Your task to perform on an android device: Search for "bose soundlink mini" on newegg.com, select the first entry, add it to the cart, then select checkout. Image 0: 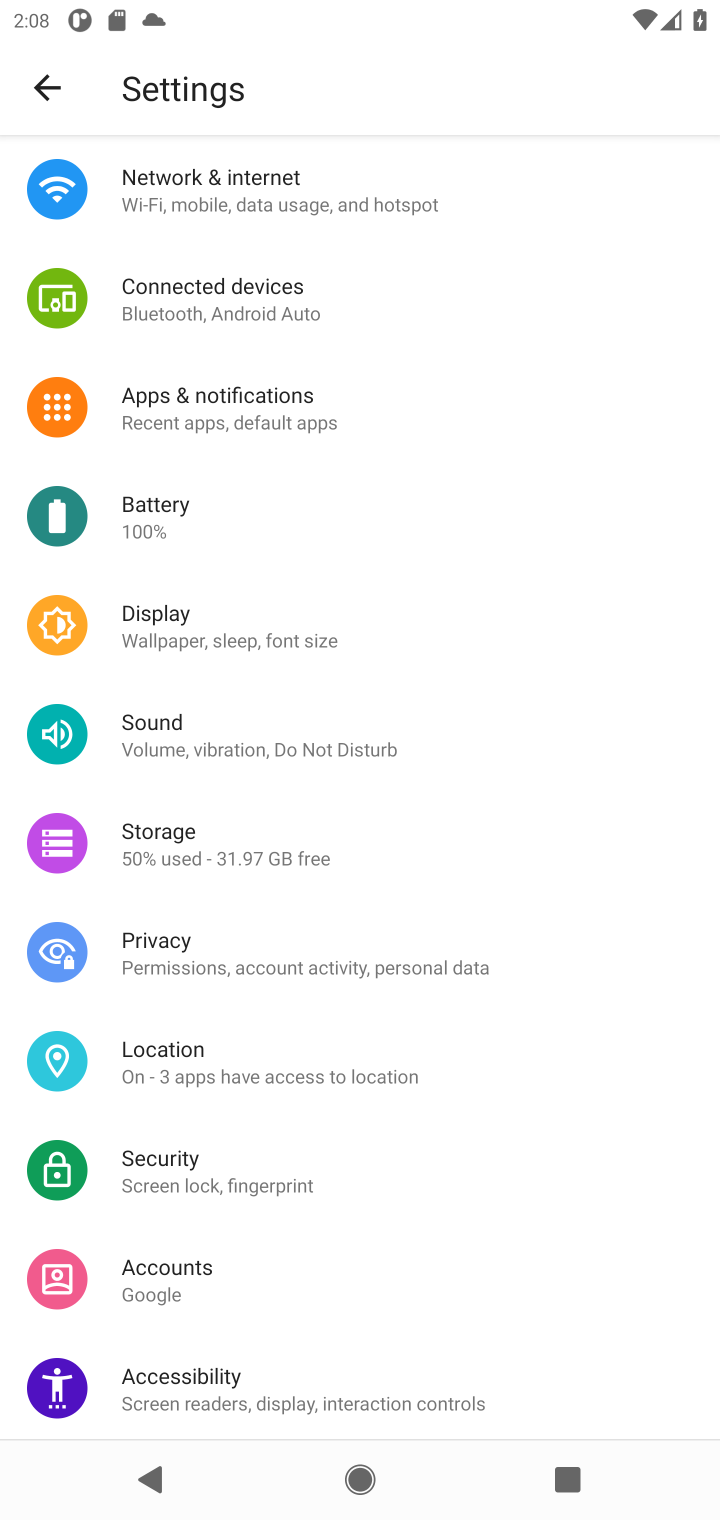
Step 0: press home button
Your task to perform on an android device: Search for "bose soundlink mini" on newegg.com, select the first entry, add it to the cart, then select checkout. Image 1: 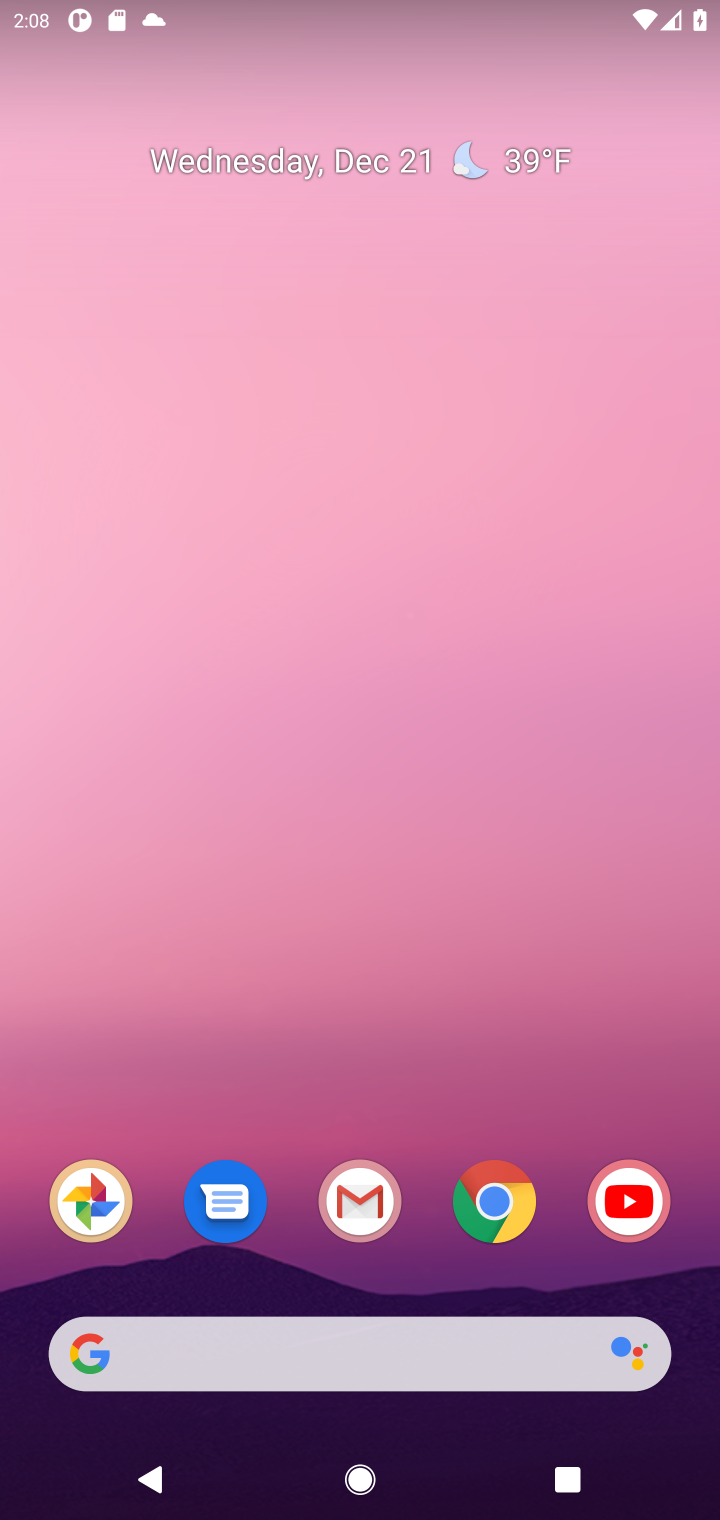
Step 1: click (485, 1226)
Your task to perform on an android device: Search for "bose soundlink mini" on newegg.com, select the first entry, add it to the cart, then select checkout. Image 2: 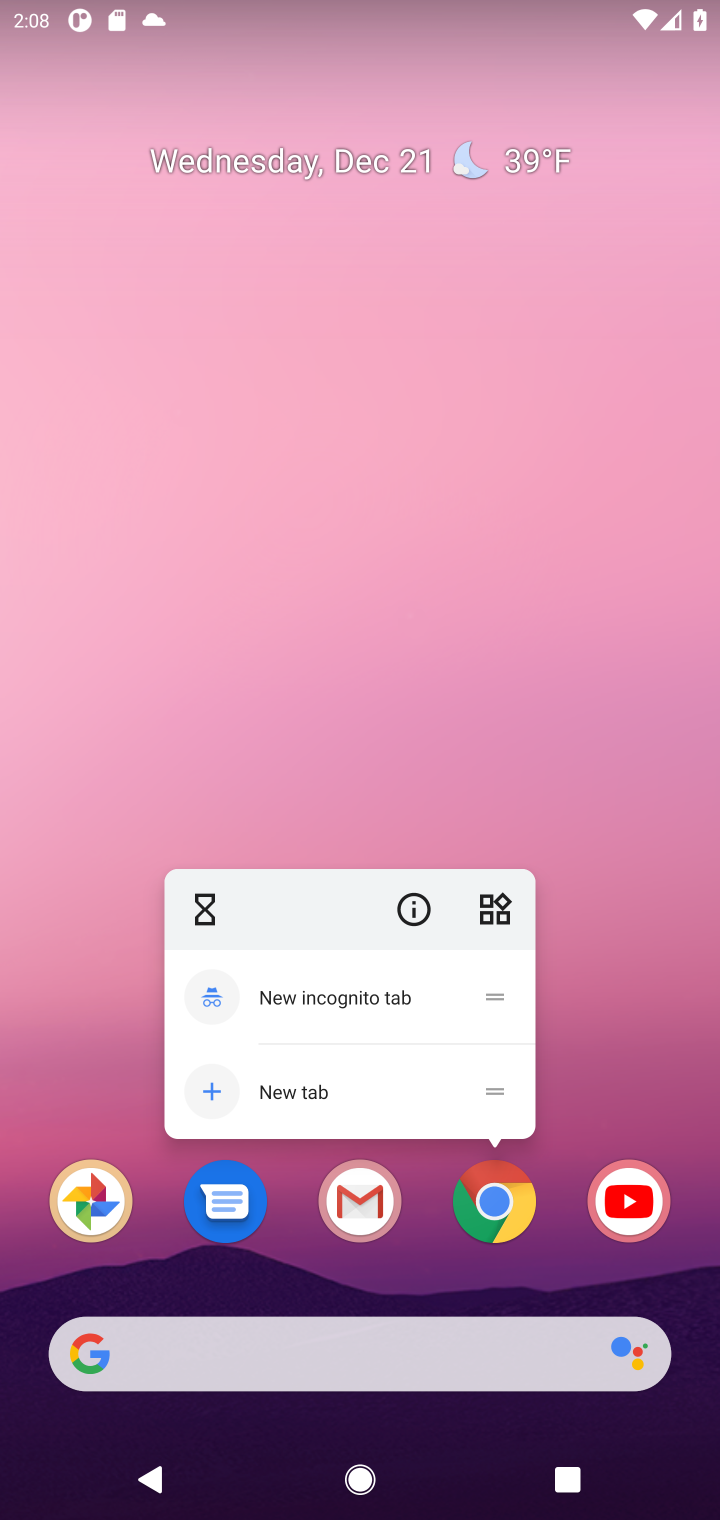
Step 2: click (494, 1215)
Your task to perform on an android device: Search for "bose soundlink mini" on newegg.com, select the first entry, add it to the cart, then select checkout. Image 3: 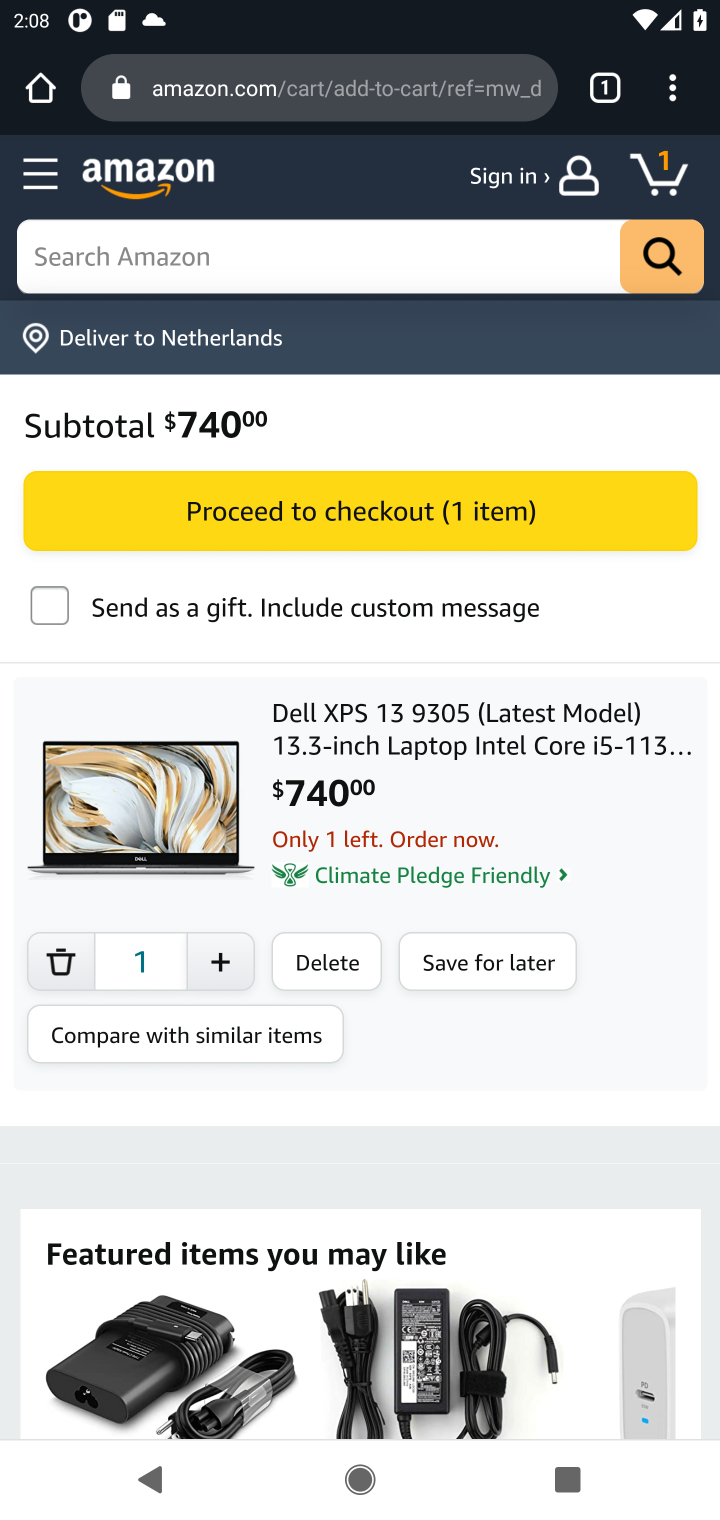
Step 3: click (210, 88)
Your task to perform on an android device: Search for "bose soundlink mini" on newegg.com, select the first entry, add it to the cart, then select checkout. Image 4: 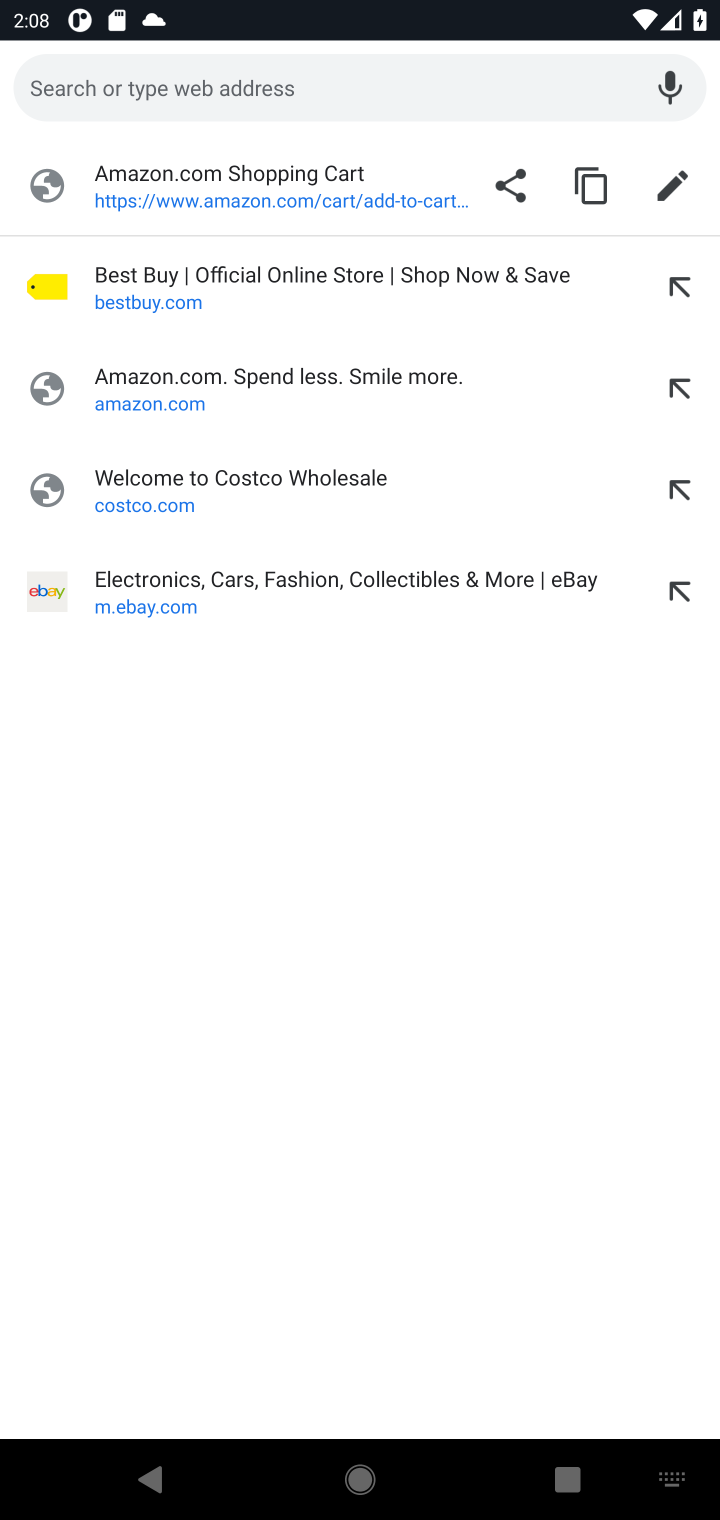
Step 4: type "newegg.com"
Your task to perform on an android device: Search for "bose soundlink mini" on newegg.com, select the first entry, add it to the cart, then select checkout. Image 5: 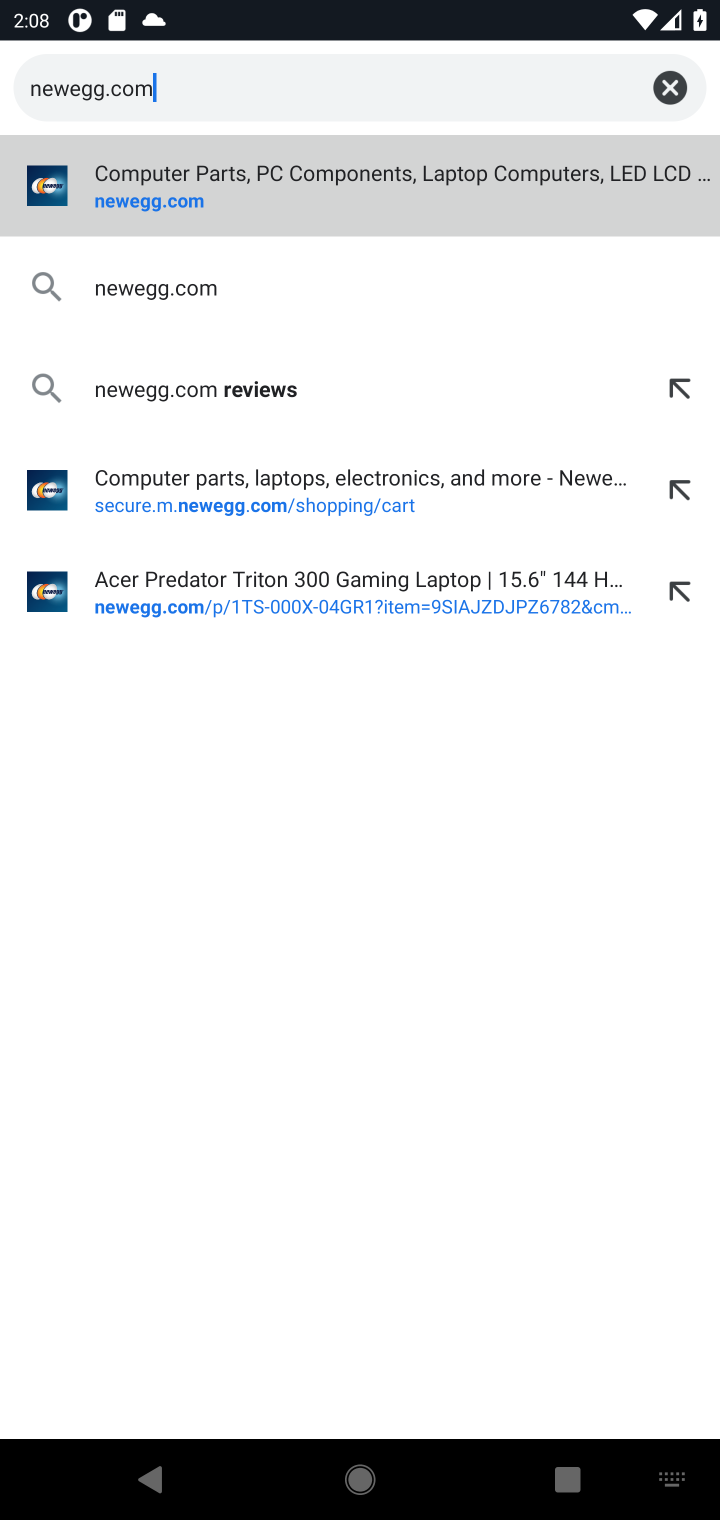
Step 5: click (127, 174)
Your task to perform on an android device: Search for "bose soundlink mini" on newegg.com, select the first entry, add it to the cart, then select checkout. Image 6: 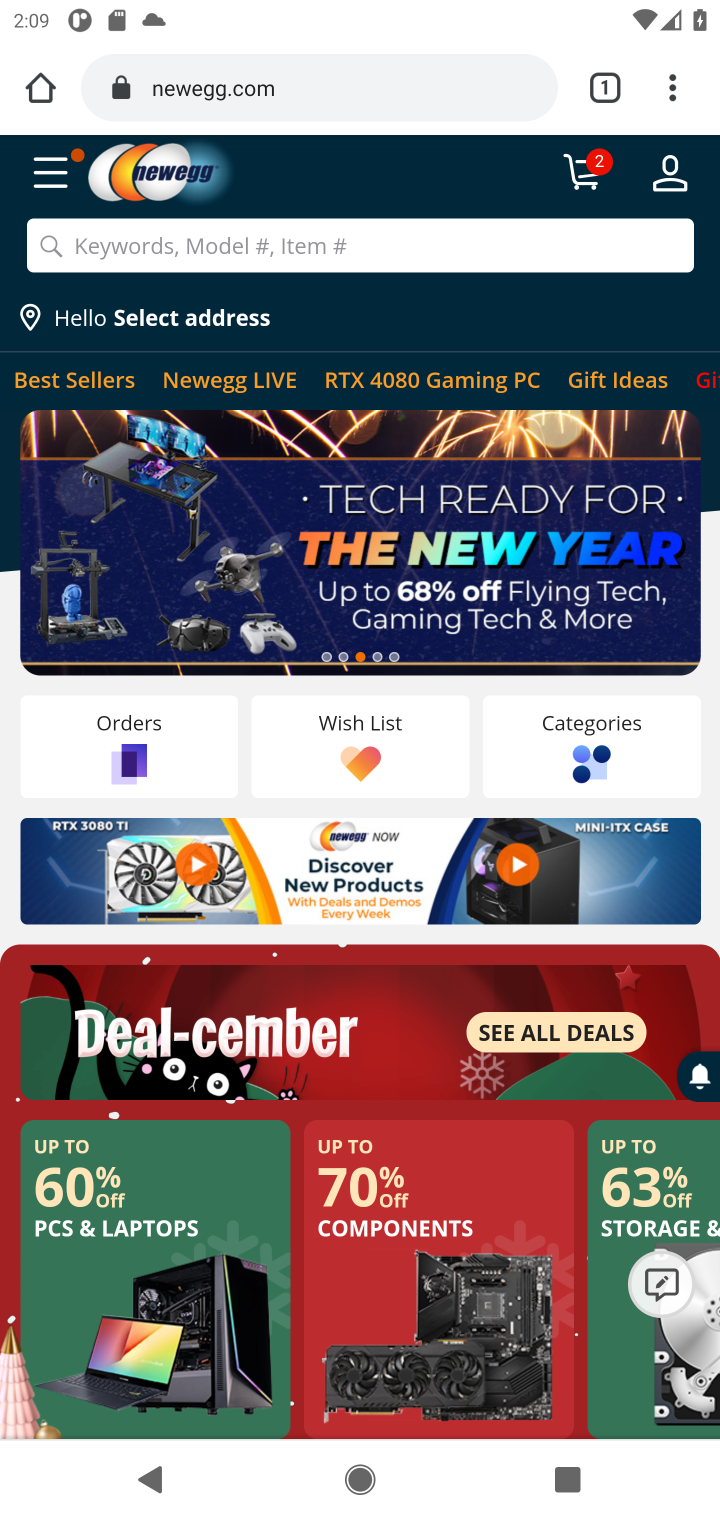
Step 6: click (111, 238)
Your task to perform on an android device: Search for "bose soundlink mini" on newegg.com, select the first entry, add it to the cart, then select checkout. Image 7: 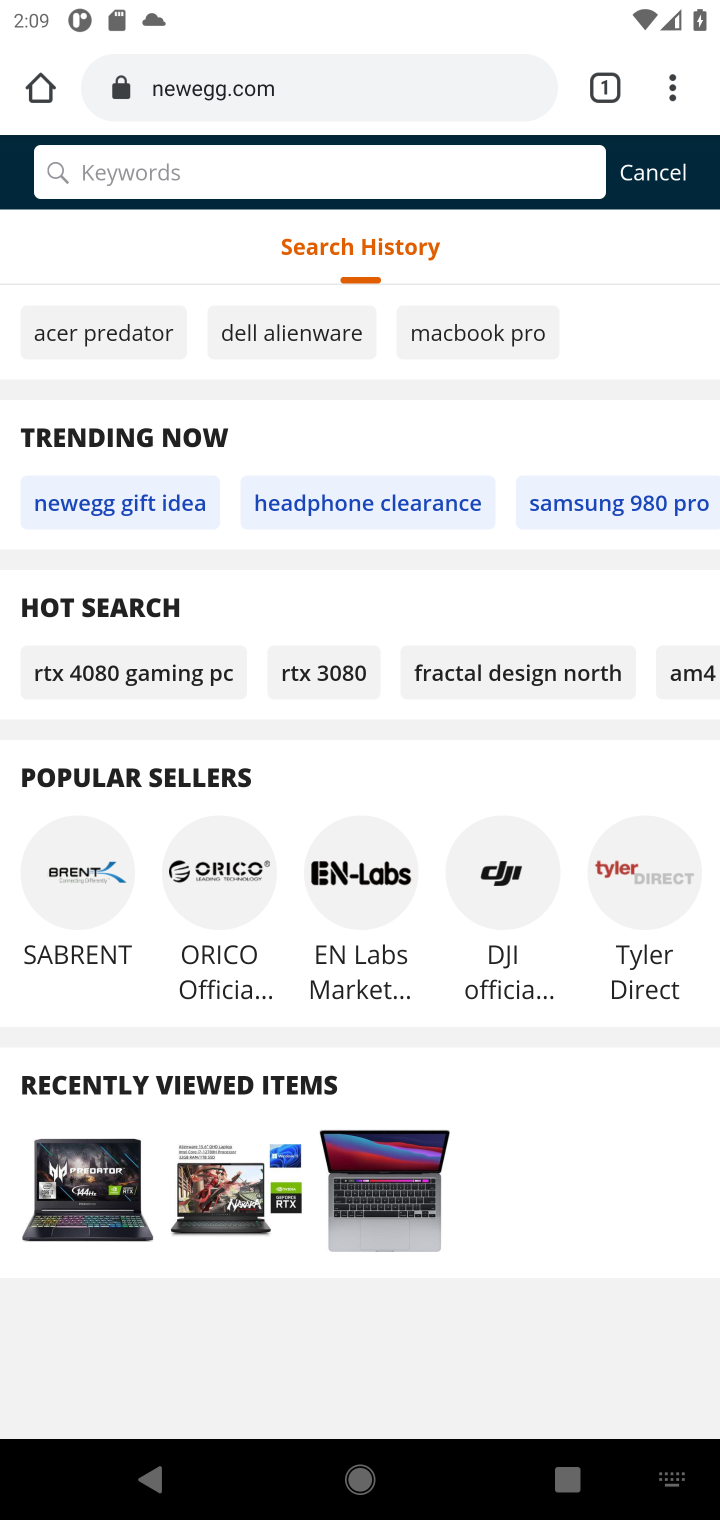
Step 7: type "bose soundlink mini"
Your task to perform on an android device: Search for "bose soundlink mini" on newegg.com, select the first entry, add it to the cart, then select checkout. Image 8: 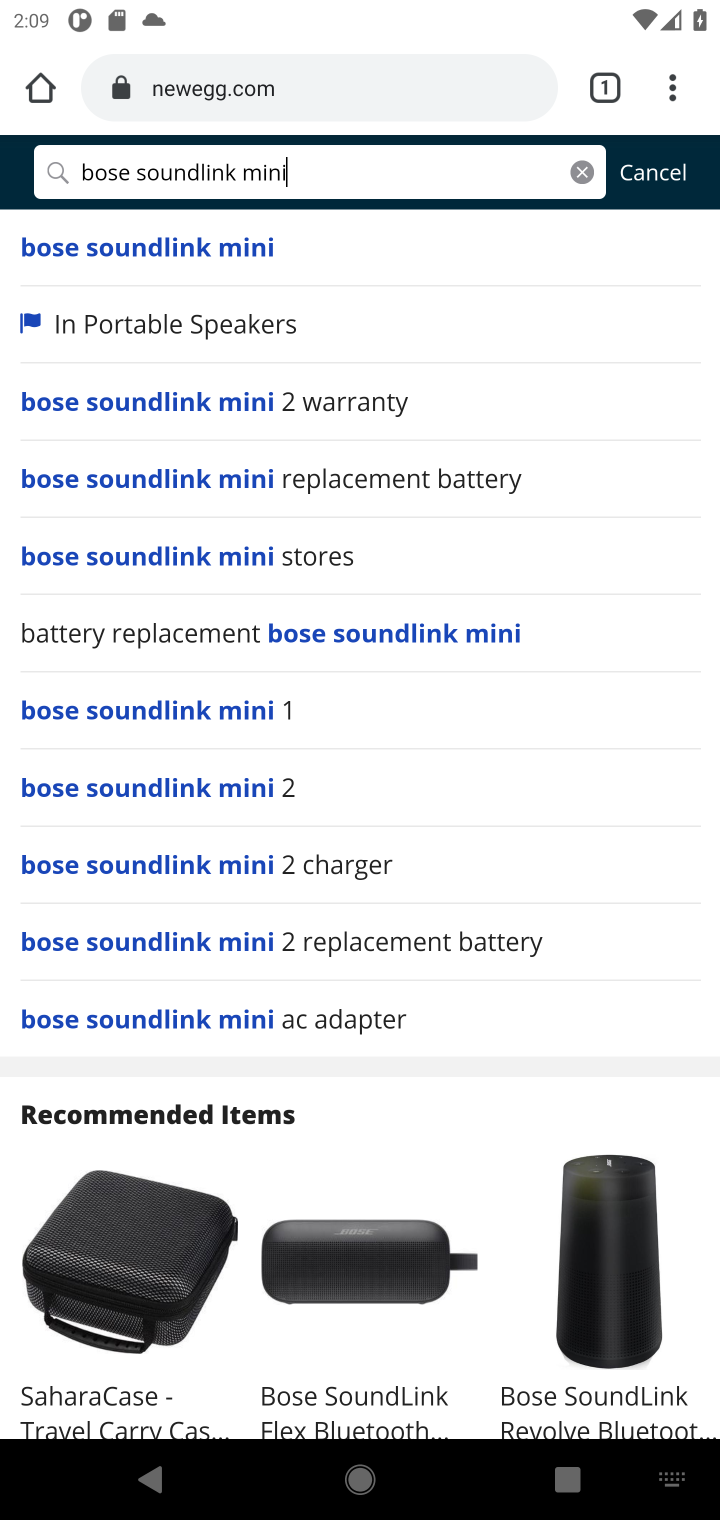
Step 8: click (117, 256)
Your task to perform on an android device: Search for "bose soundlink mini" on newegg.com, select the first entry, add it to the cart, then select checkout. Image 9: 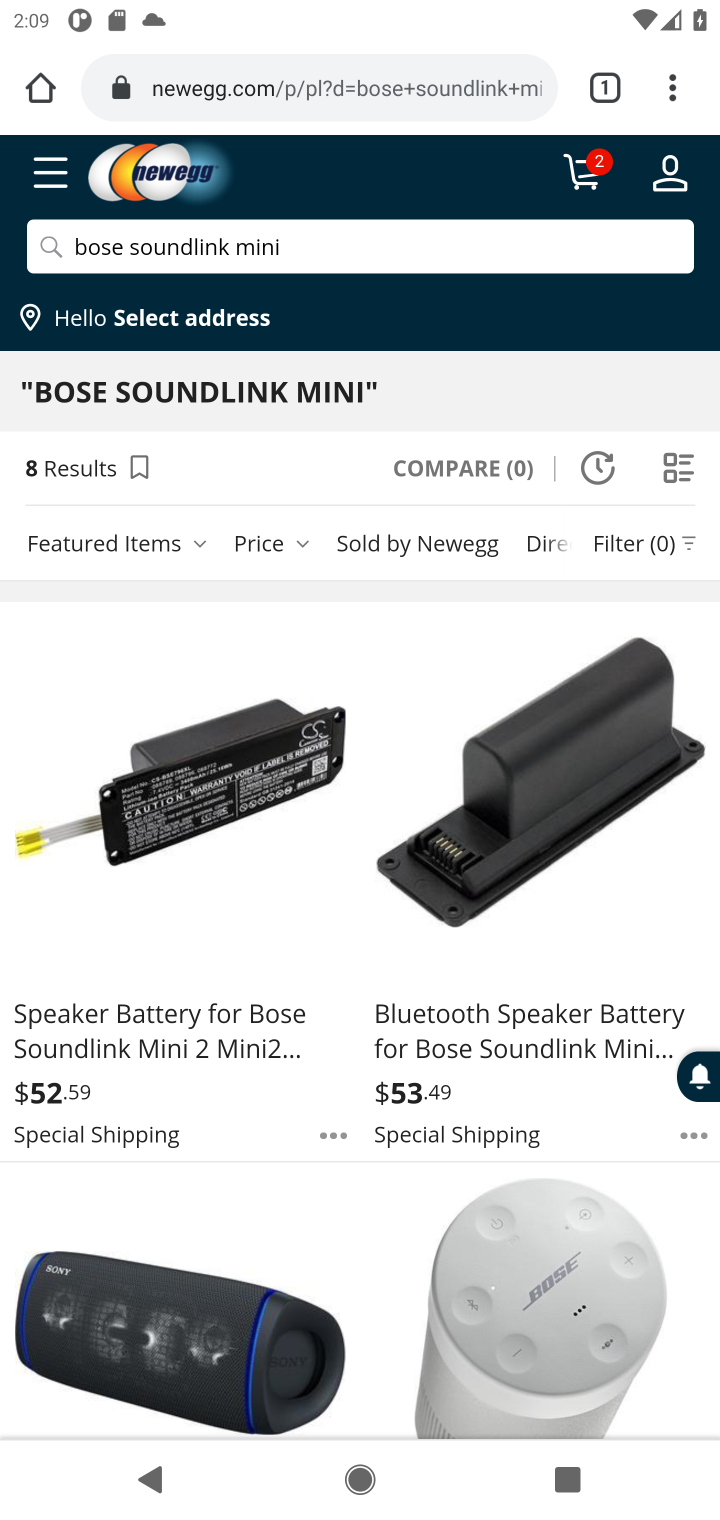
Step 9: drag from (215, 940) to (219, 620)
Your task to perform on an android device: Search for "bose soundlink mini" on newegg.com, select the first entry, add it to the cart, then select checkout. Image 10: 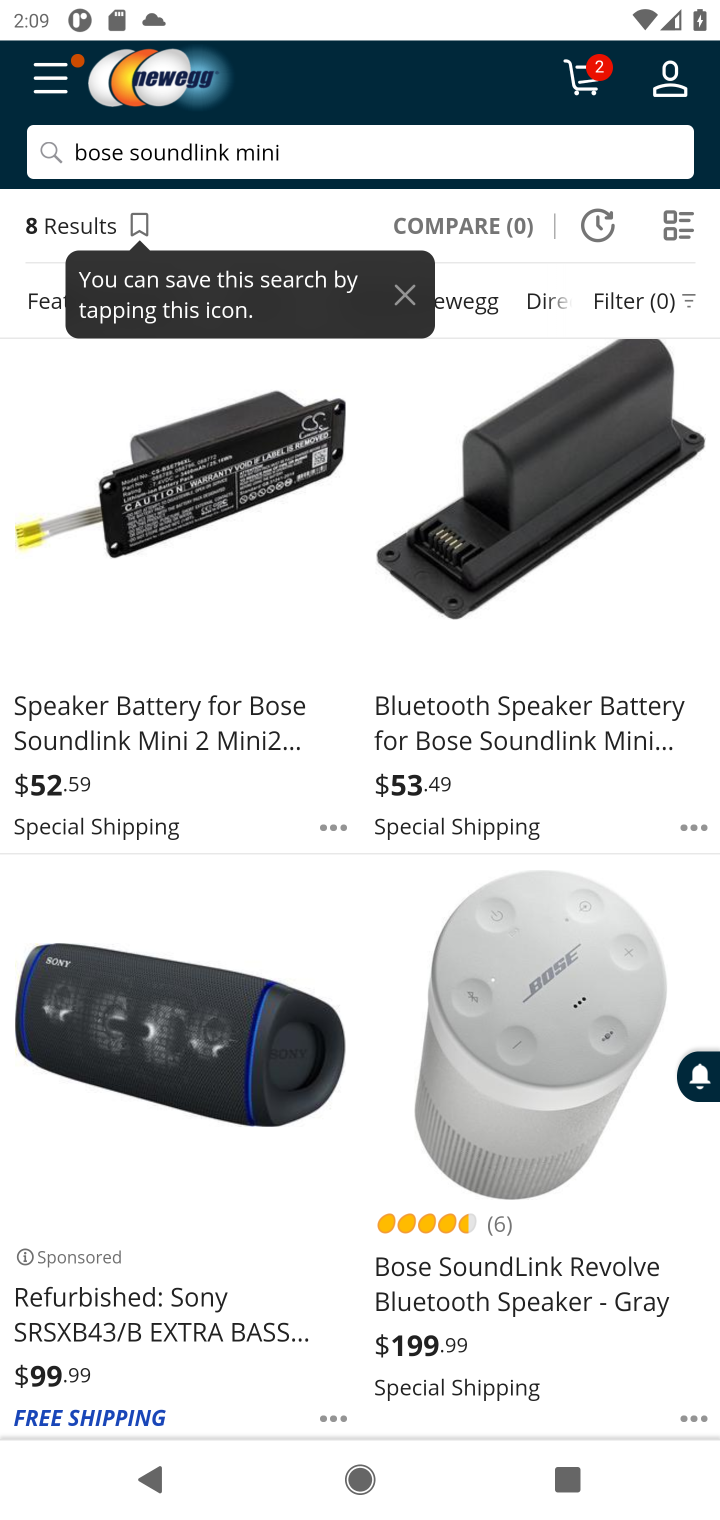
Step 10: click (148, 726)
Your task to perform on an android device: Search for "bose soundlink mini" on newegg.com, select the first entry, add it to the cart, then select checkout. Image 11: 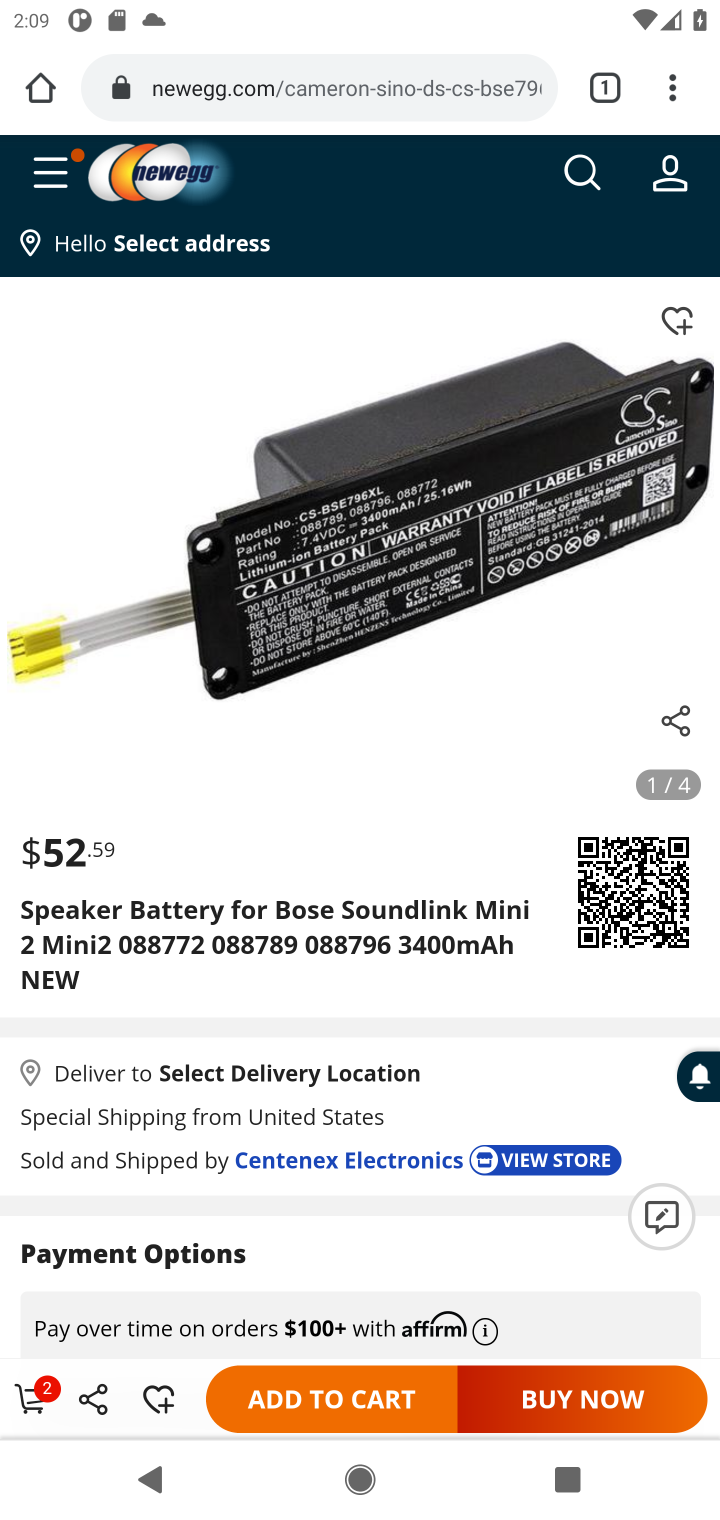
Step 11: click (328, 1402)
Your task to perform on an android device: Search for "bose soundlink mini" on newegg.com, select the first entry, add it to the cart, then select checkout. Image 12: 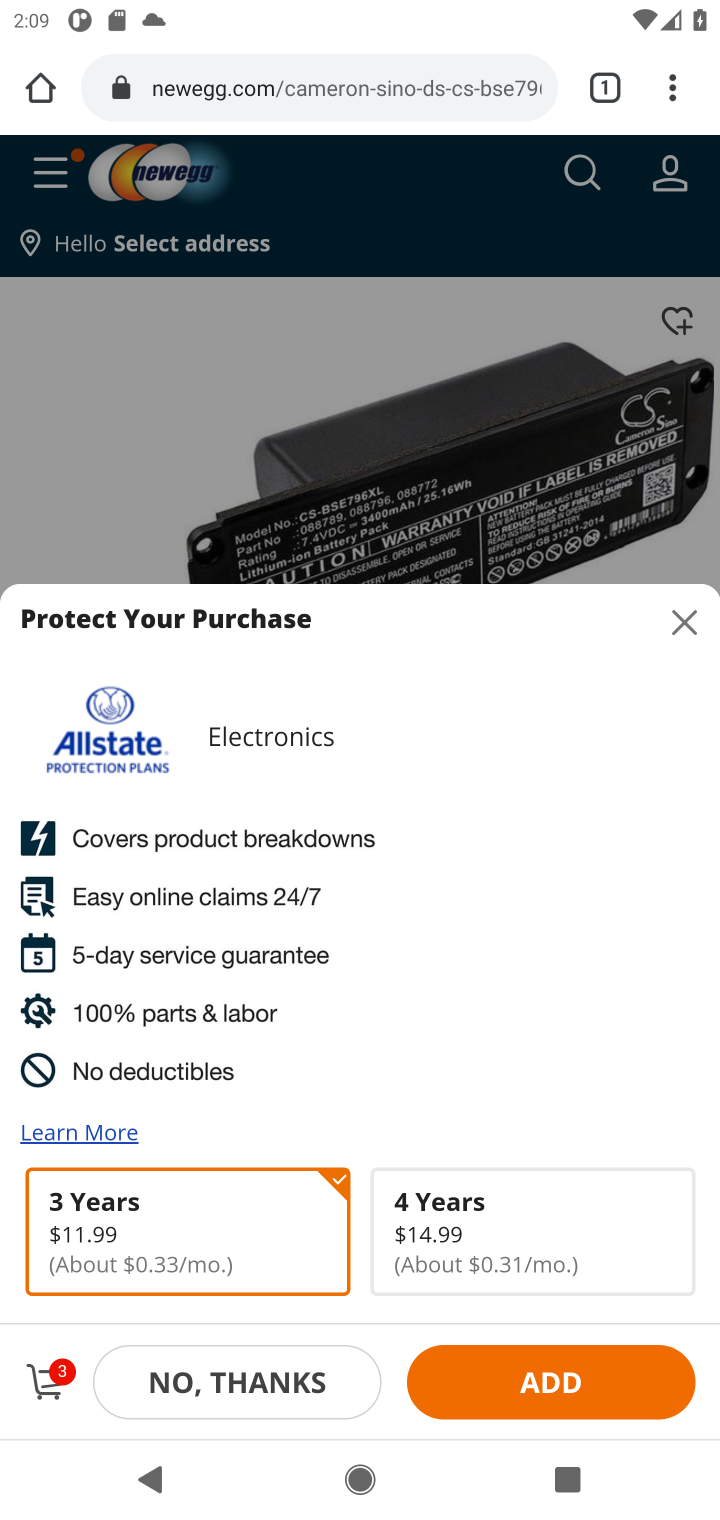
Step 12: click (50, 1384)
Your task to perform on an android device: Search for "bose soundlink mini" on newegg.com, select the first entry, add it to the cart, then select checkout. Image 13: 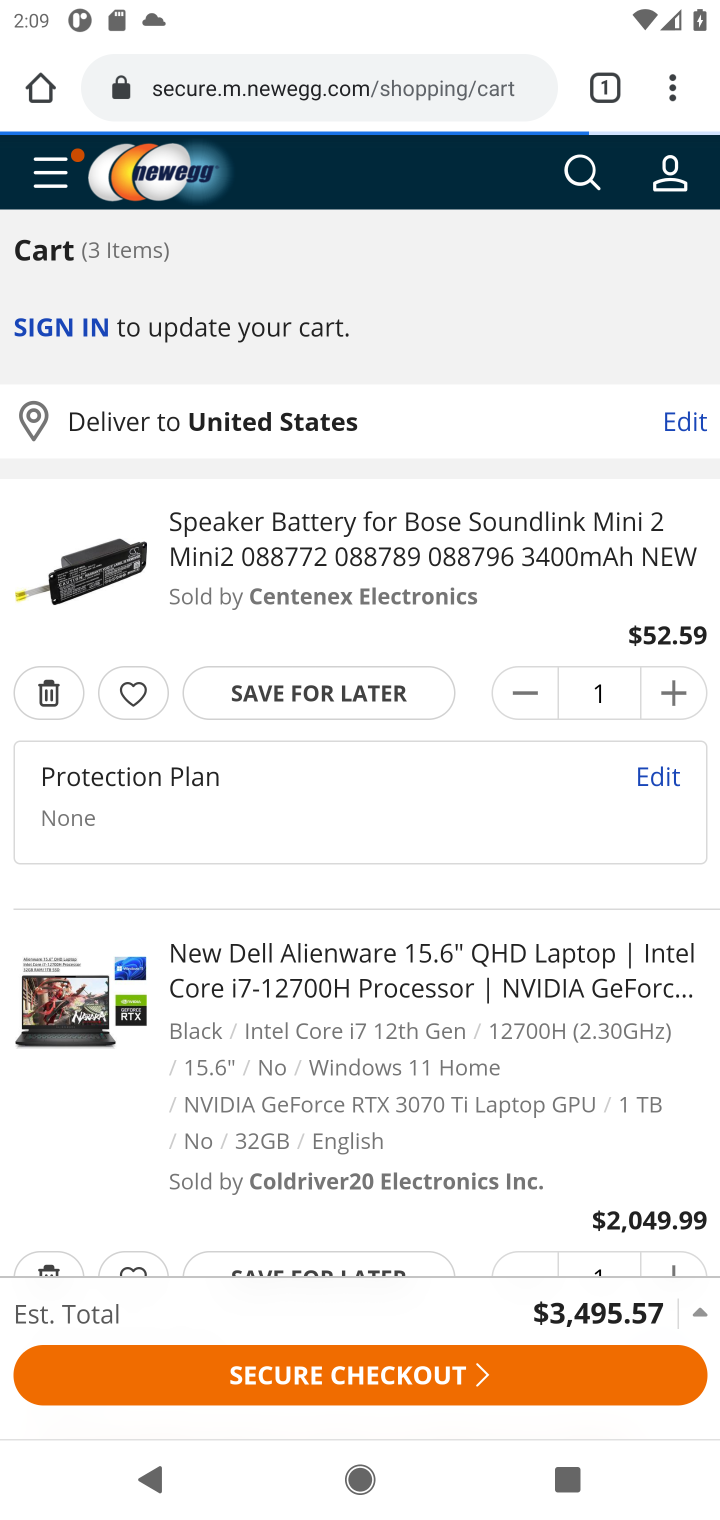
Step 13: click (161, 1366)
Your task to perform on an android device: Search for "bose soundlink mini" on newegg.com, select the first entry, add it to the cart, then select checkout. Image 14: 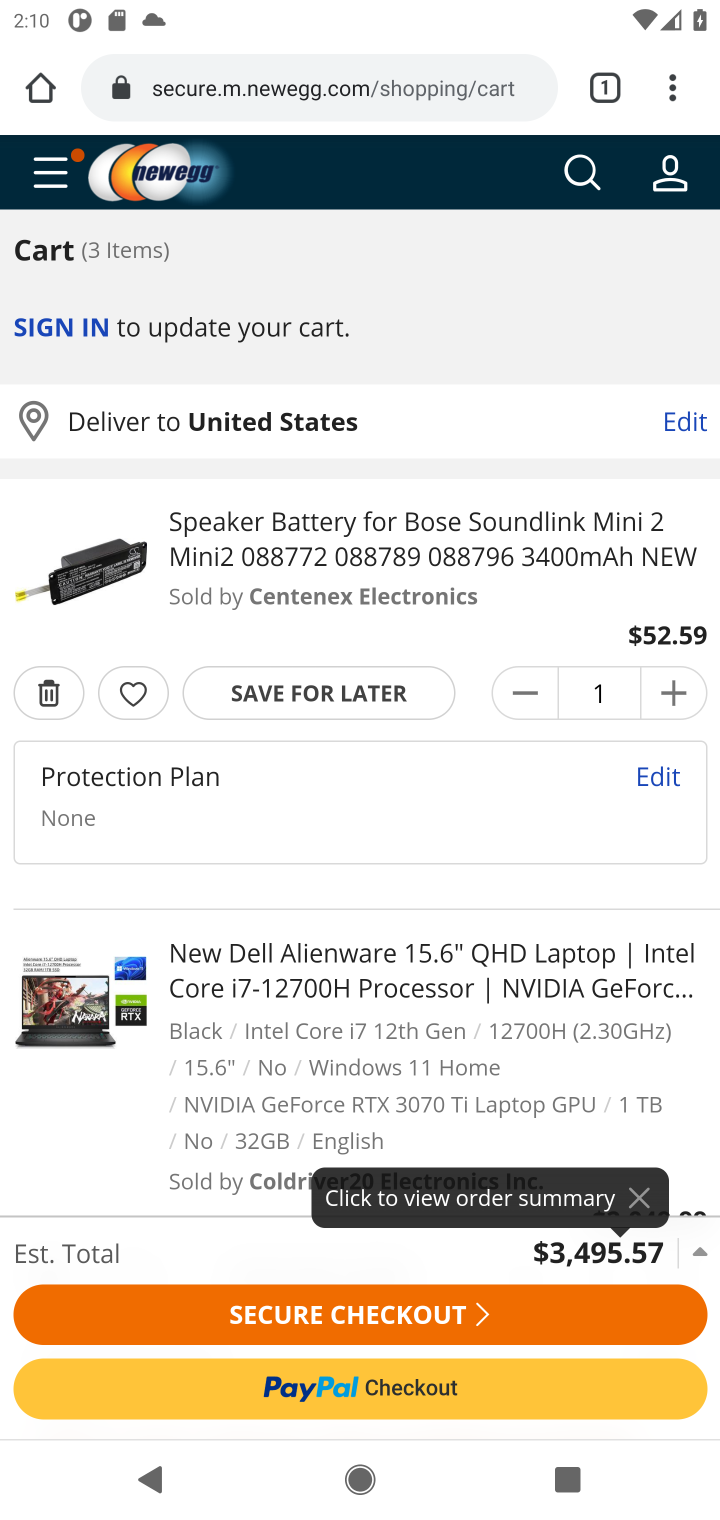
Step 14: click (373, 1308)
Your task to perform on an android device: Search for "bose soundlink mini" on newegg.com, select the first entry, add it to the cart, then select checkout. Image 15: 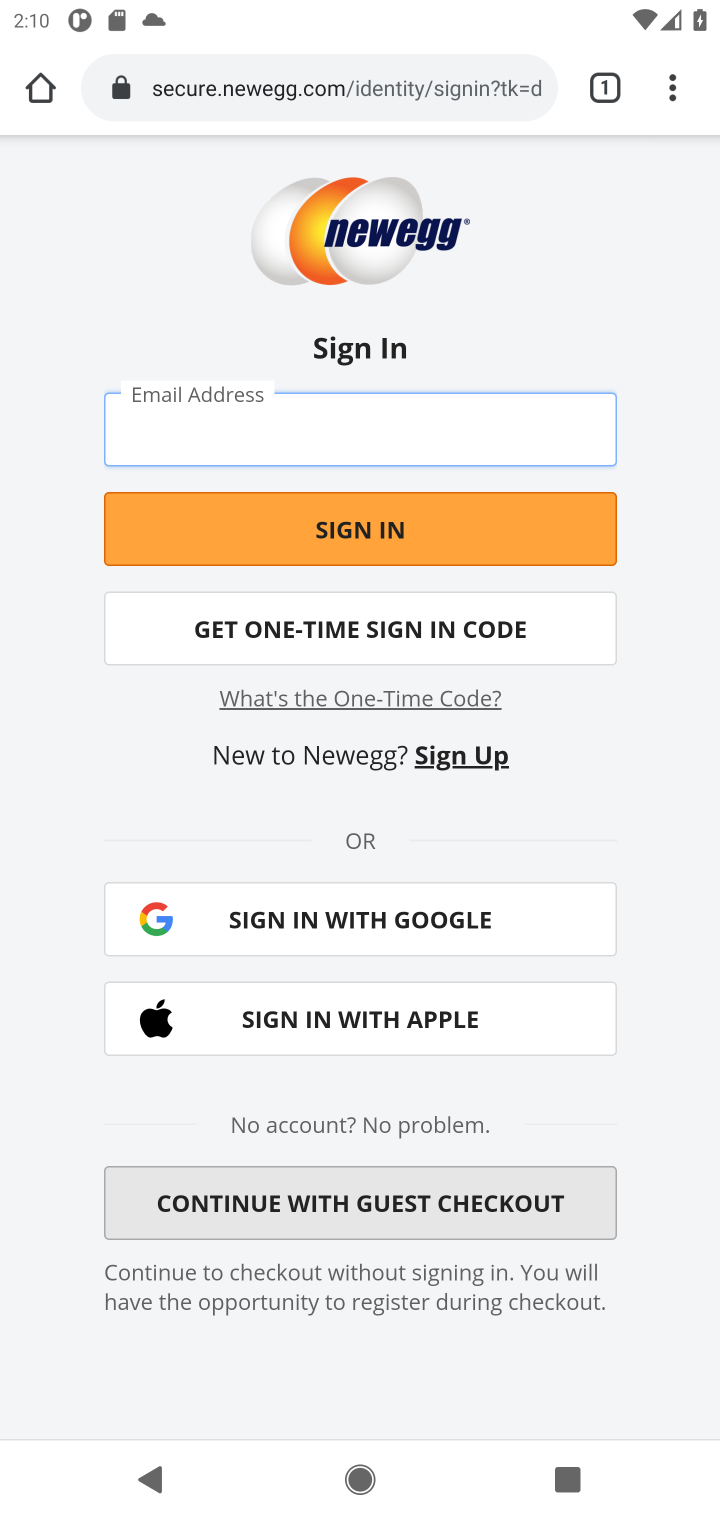
Step 15: task complete